Your task to perform on an android device: turn off sleep mode Image 0: 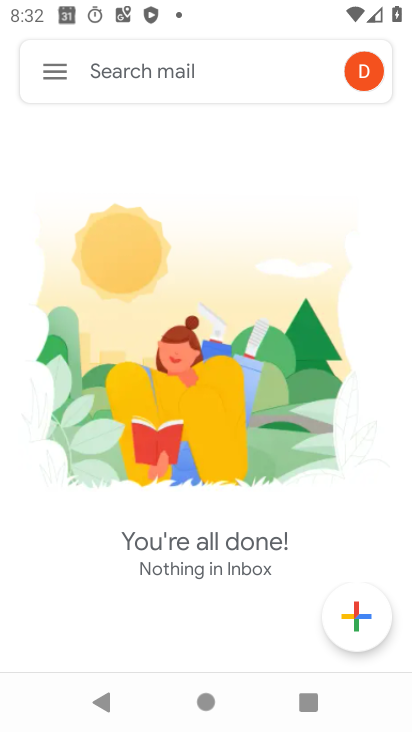
Step 0: press home button
Your task to perform on an android device: turn off sleep mode Image 1: 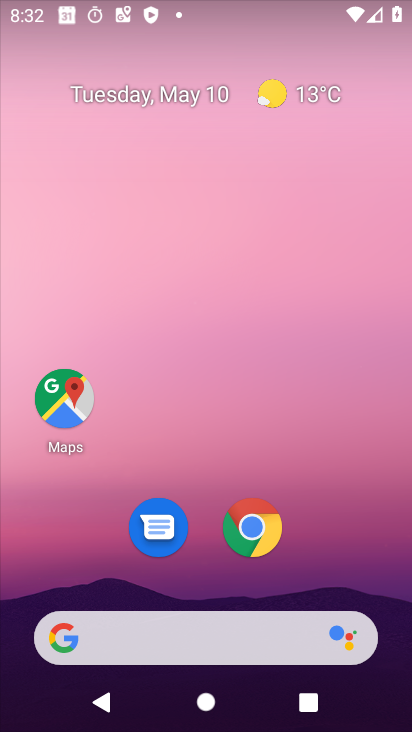
Step 1: press back button
Your task to perform on an android device: turn off sleep mode Image 2: 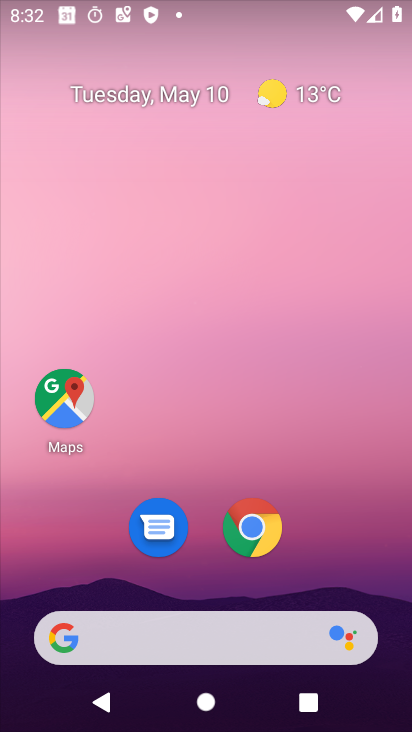
Step 2: drag from (26, 729) to (298, 71)
Your task to perform on an android device: turn off sleep mode Image 3: 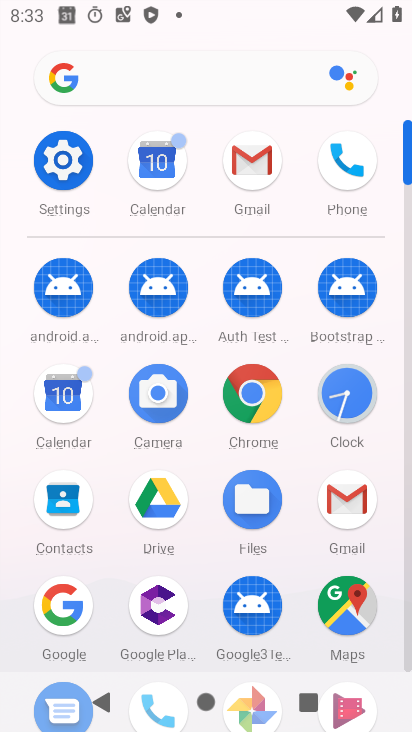
Step 3: click (81, 156)
Your task to perform on an android device: turn off sleep mode Image 4: 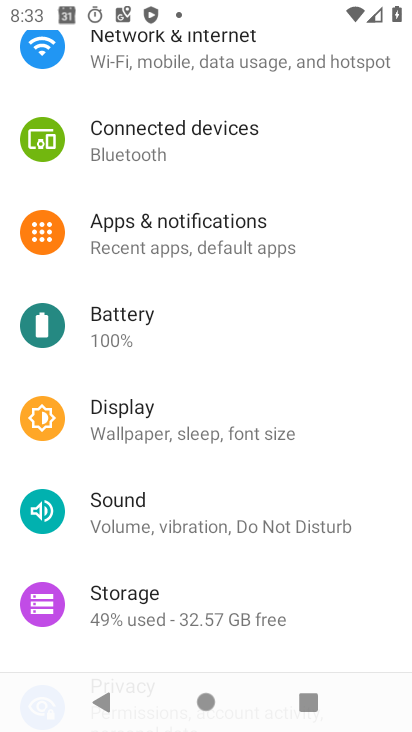
Step 4: click (191, 445)
Your task to perform on an android device: turn off sleep mode Image 5: 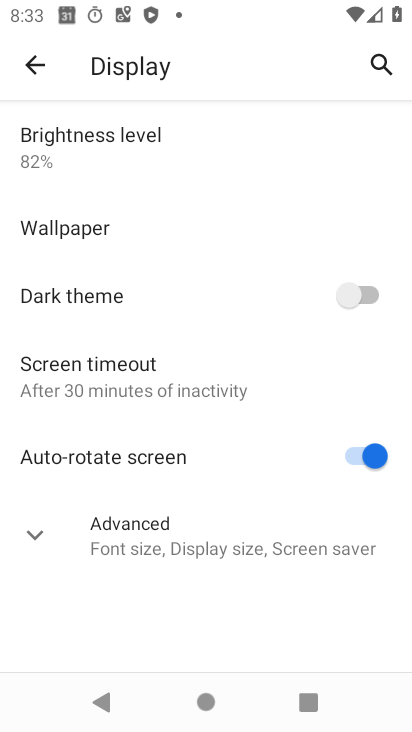
Step 5: task complete